Your task to perform on an android device: show emergency info Image 0: 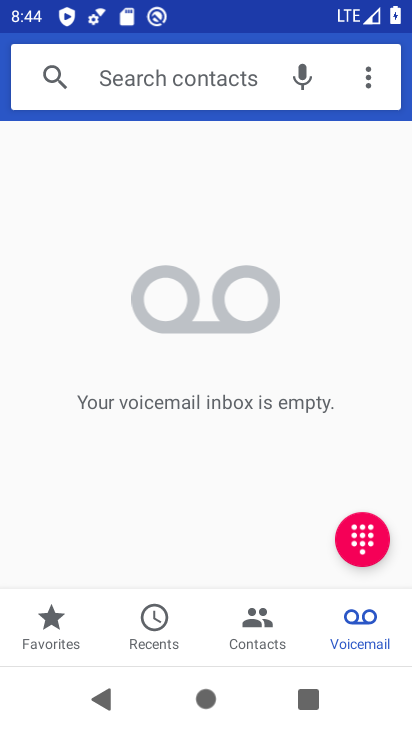
Step 0: press home button
Your task to perform on an android device: show emergency info Image 1: 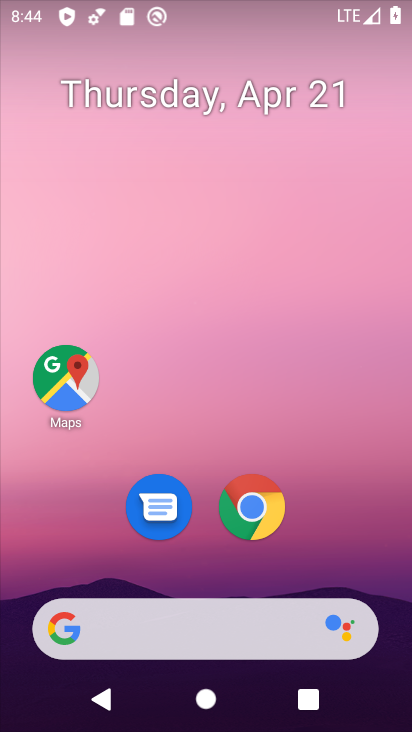
Step 1: drag from (361, 526) to (360, 134)
Your task to perform on an android device: show emergency info Image 2: 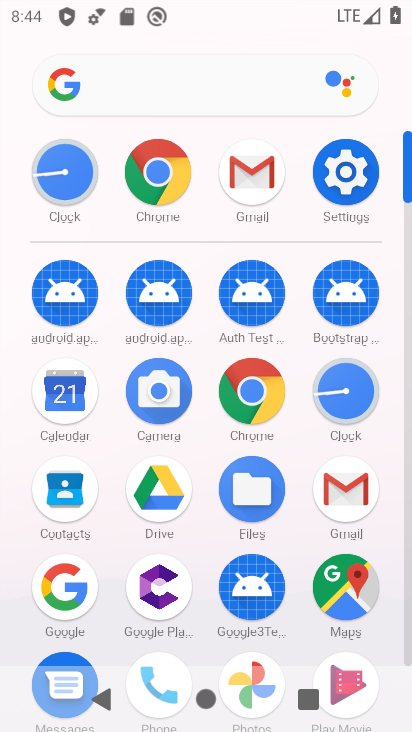
Step 2: click (348, 175)
Your task to perform on an android device: show emergency info Image 3: 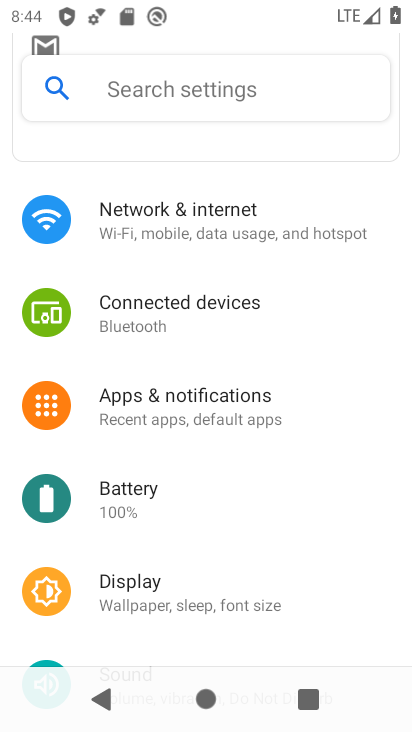
Step 3: drag from (322, 590) to (308, 235)
Your task to perform on an android device: show emergency info Image 4: 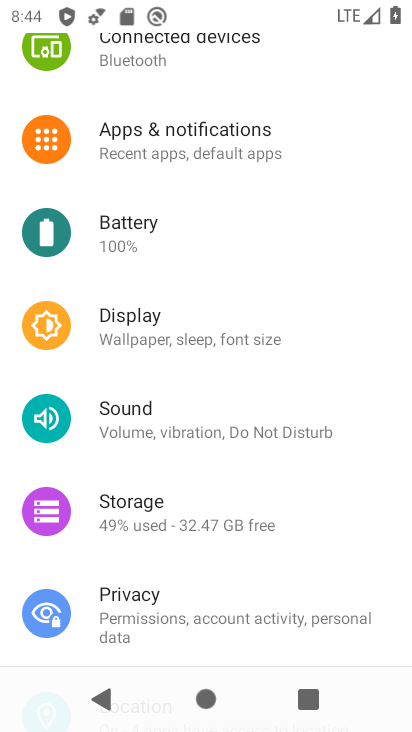
Step 4: drag from (326, 532) to (307, 254)
Your task to perform on an android device: show emergency info Image 5: 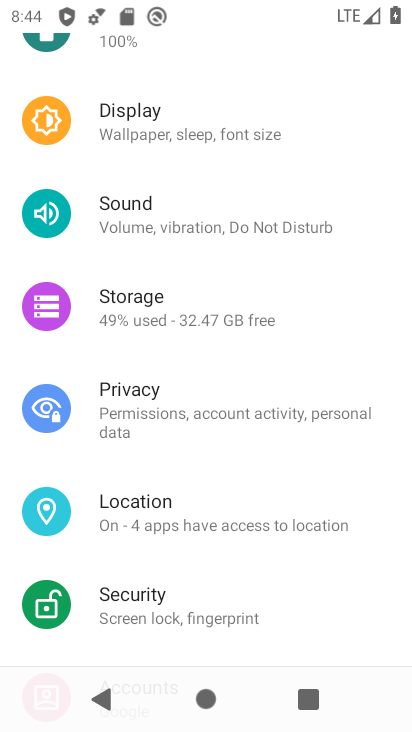
Step 5: drag from (271, 565) to (279, 252)
Your task to perform on an android device: show emergency info Image 6: 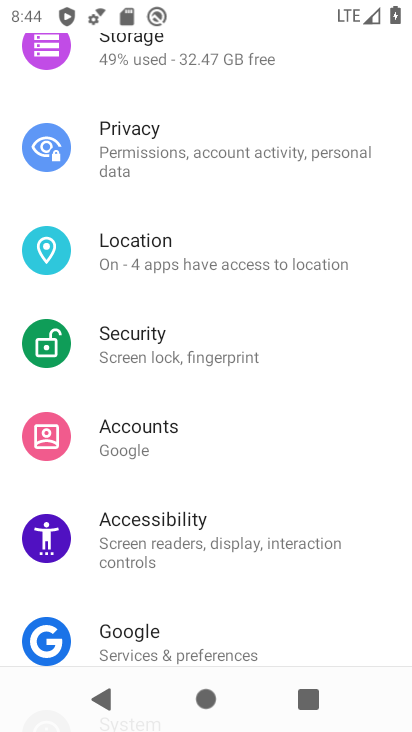
Step 6: drag from (264, 598) to (256, 177)
Your task to perform on an android device: show emergency info Image 7: 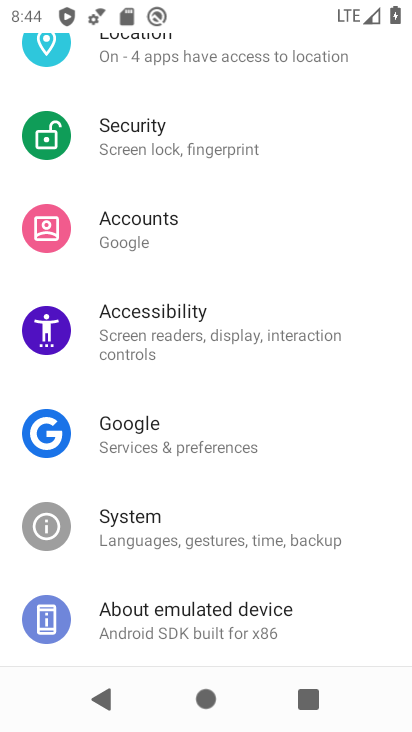
Step 7: drag from (333, 603) to (303, 308)
Your task to perform on an android device: show emergency info Image 8: 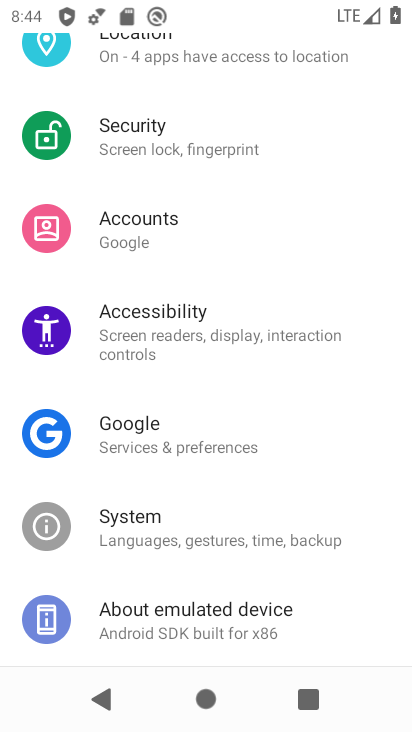
Step 8: click (231, 607)
Your task to perform on an android device: show emergency info Image 9: 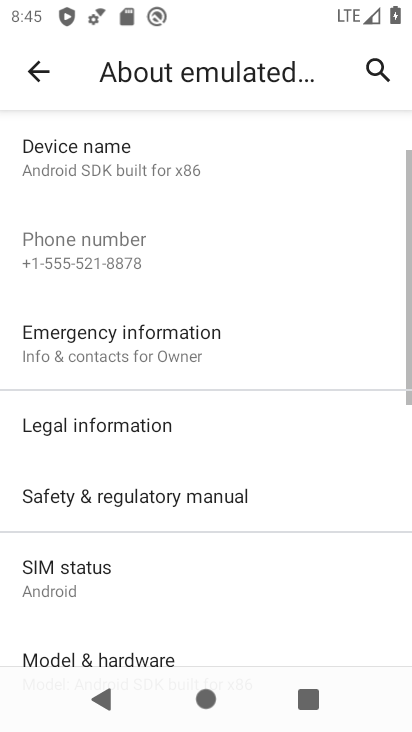
Step 9: task complete